Your task to perform on an android device: delete the emails in spam in the gmail app Image 0: 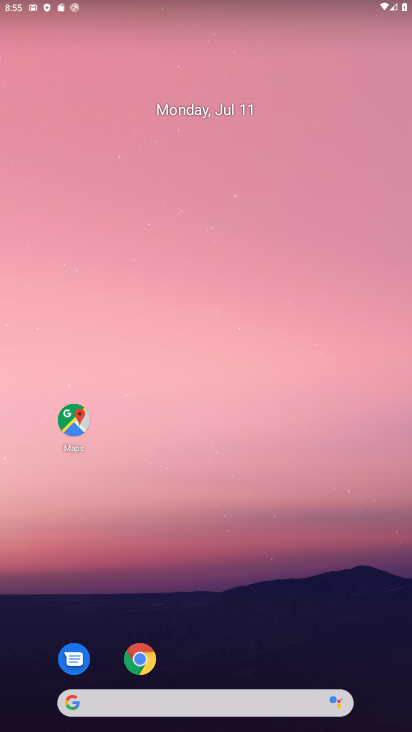
Step 0: drag from (339, 625) to (330, 140)
Your task to perform on an android device: delete the emails in spam in the gmail app Image 1: 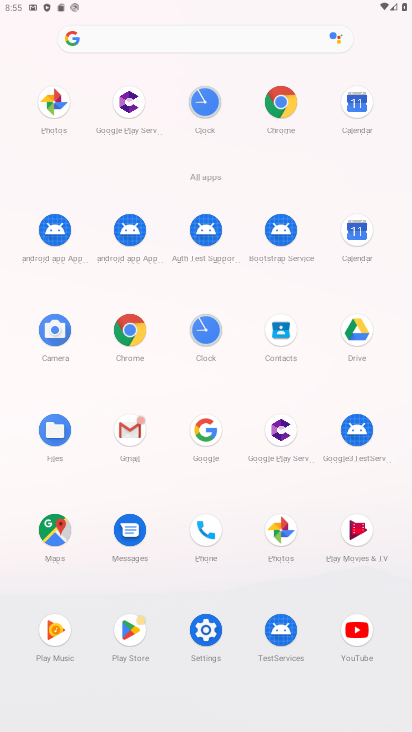
Step 1: click (135, 431)
Your task to perform on an android device: delete the emails in spam in the gmail app Image 2: 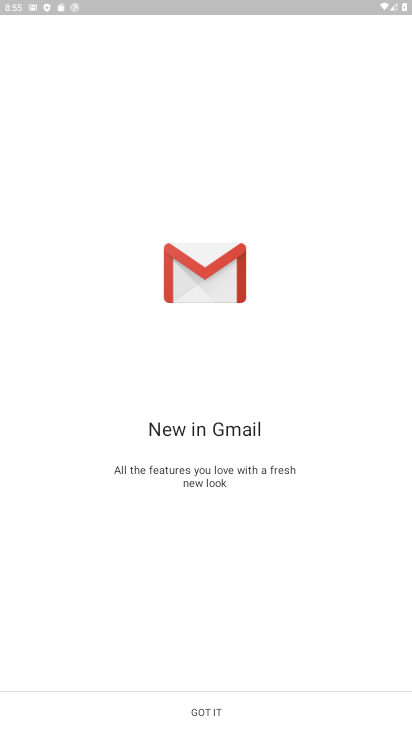
Step 2: click (204, 715)
Your task to perform on an android device: delete the emails in spam in the gmail app Image 3: 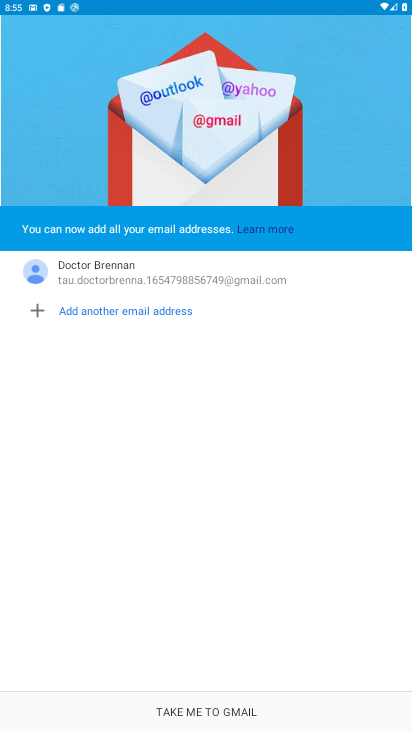
Step 3: click (227, 710)
Your task to perform on an android device: delete the emails in spam in the gmail app Image 4: 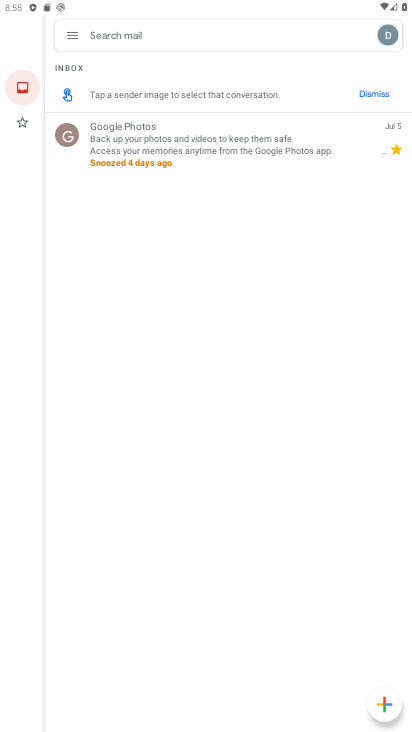
Step 4: click (71, 31)
Your task to perform on an android device: delete the emails in spam in the gmail app Image 5: 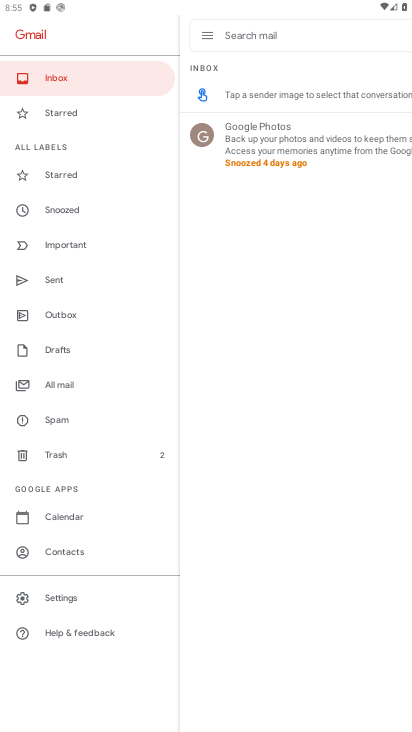
Step 5: click (66, 425)
Your task to perform on an android device: delete the emails in spam in the gmail app Image 6: 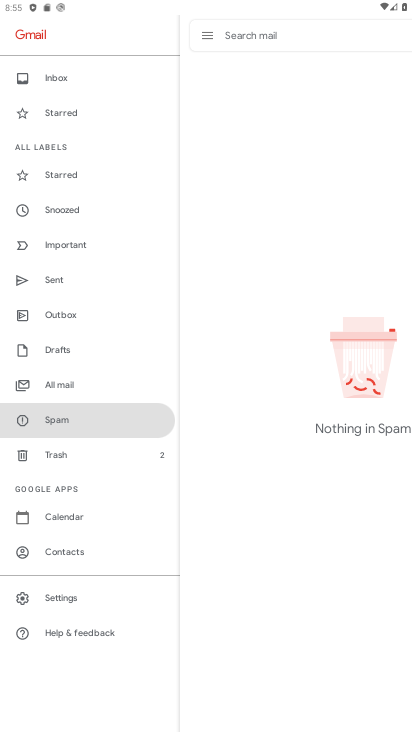
Step 6: task complete